Your task to perform on an android device: Go to Yahoo.com Image 0: 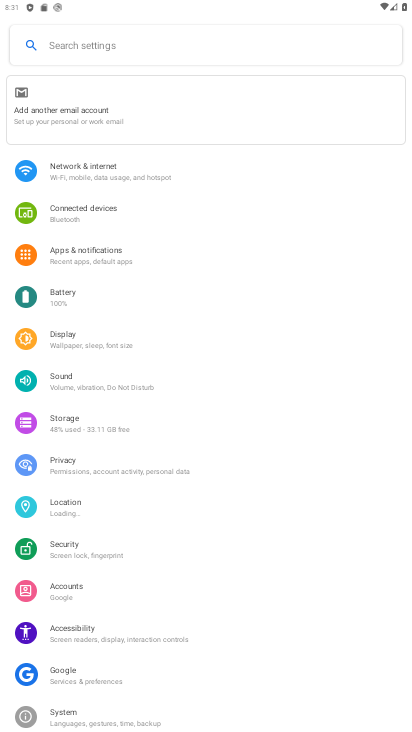
Step 0: press home button
Your task to perform on an android device: Go to Yahoo.com Image 1: 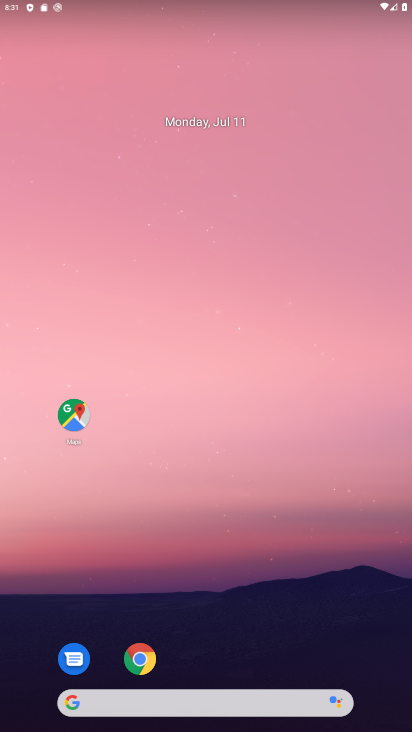
Step 1: drag from (197, 631) to (181, 219)
Your task to perform on an android device: Go to Yahoo.com Image 2: 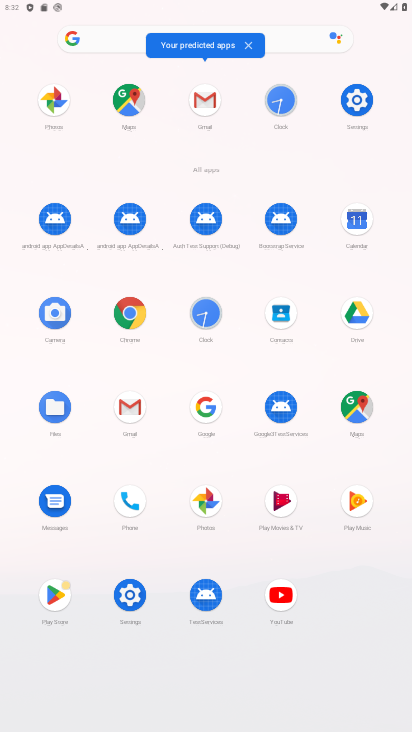
Step 2: click (144, 317)
Your task to perform on an android device: Go to Yahoo.com Image 3: 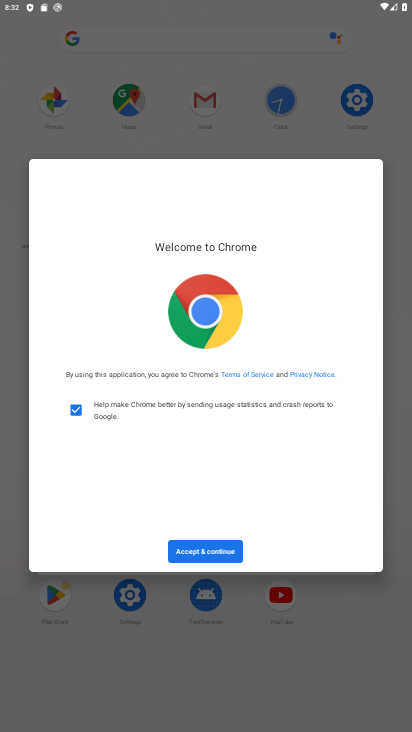
Step 3: click (225, 549)
Your task to perform on an android device: Go to Yahoo.com Image 4: 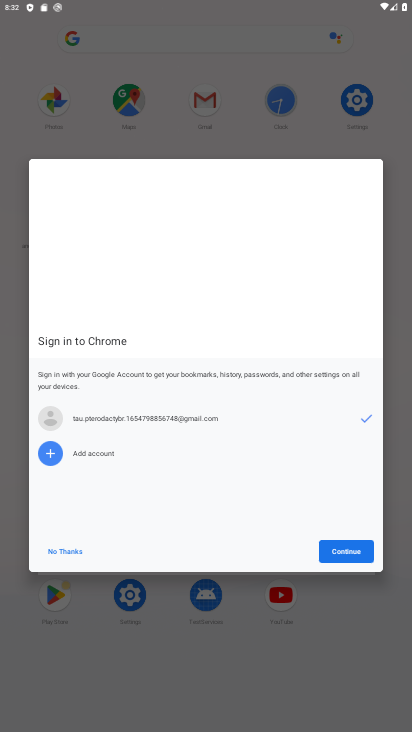
Step 4: click (347, 554)
Your task to perform on an android device: Go to Yahoo.com Image 5: 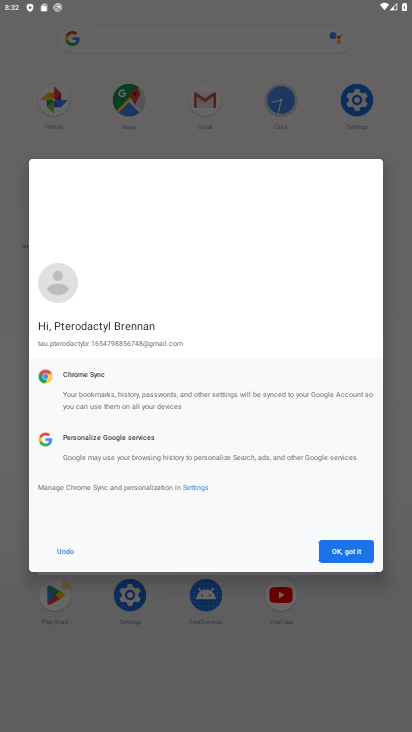
Step 5: click (362, 553)
Your task to perform on an android device: Go to Yahoo.com Image 6: 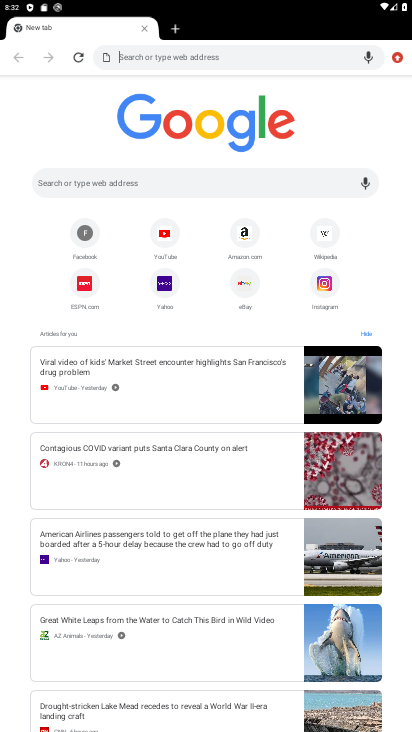
Step 6: click (173, 289)
Your task to perform on an android device: Go to Yahoo.com Image 7: 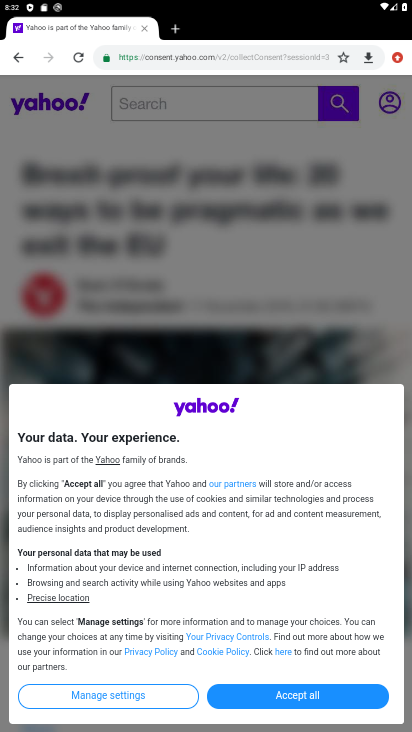
Step 7: click (319, 689)
Your task to perform on an android device: Go to Yahoo.com Image 8: 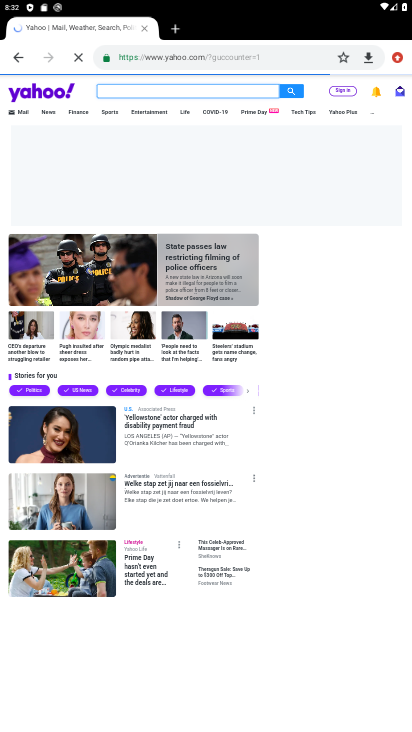
Step 8: task complete